Your task to perform on an android device: open sync settings in chrome Image 0: 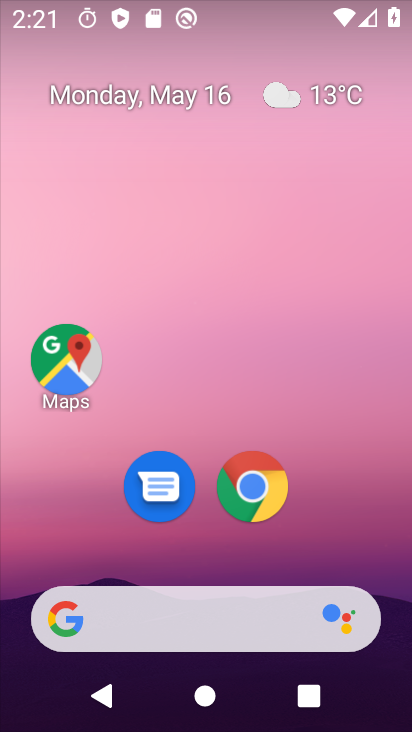
Step 0: drag from (324, 505) to (303, 0)
Your task to perform on an android device: open sync settings in chrome Image 1: 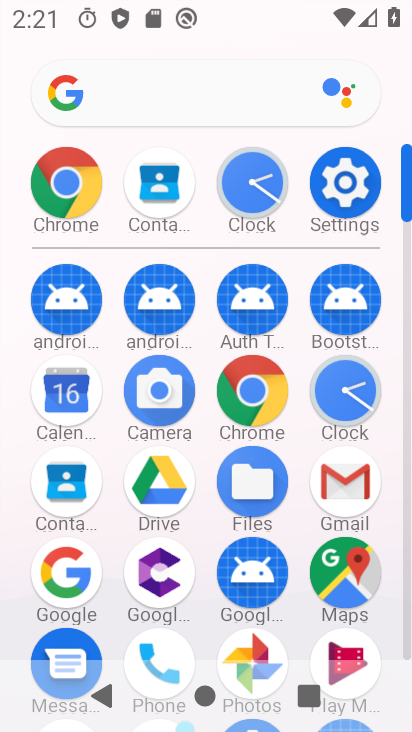
Step 1: click (56, 181)
Your task to perform on an android device: open sync settings in chrome Image 2: 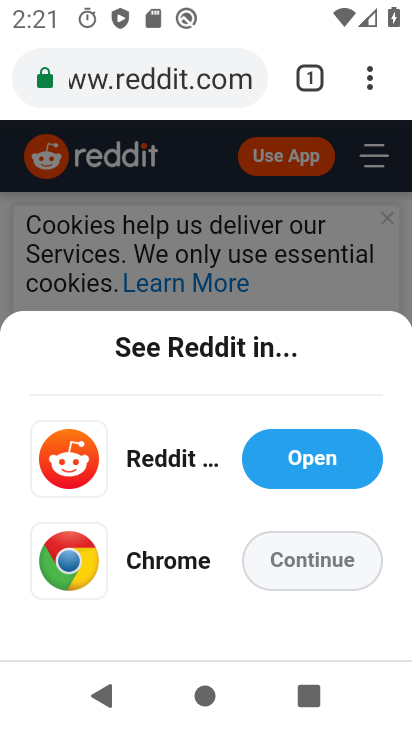
Step 2: drag from (362, 82) to (97, 552)
Your task to perform on an android device: open sync settings in chrome Image 3: 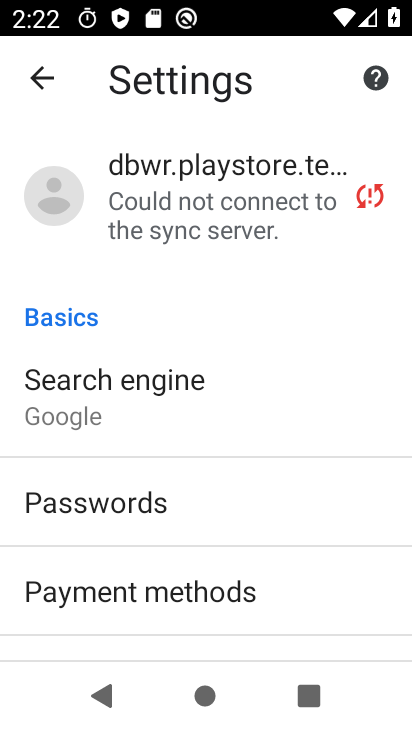
Step 3: drag from (97, 549) to (62, 218)
Your task to perform on an android device: open sync settings in chrome Image 4: 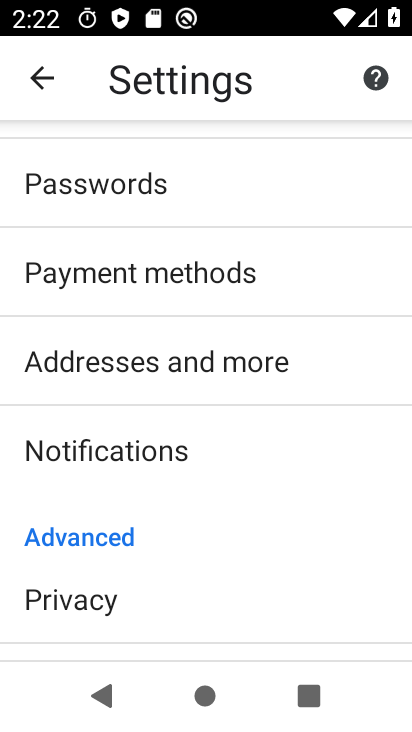
Step 4: drag from (96, 604) to (2, 131)
Your task to perform on an android device: open sync settings in chrome Image 5: 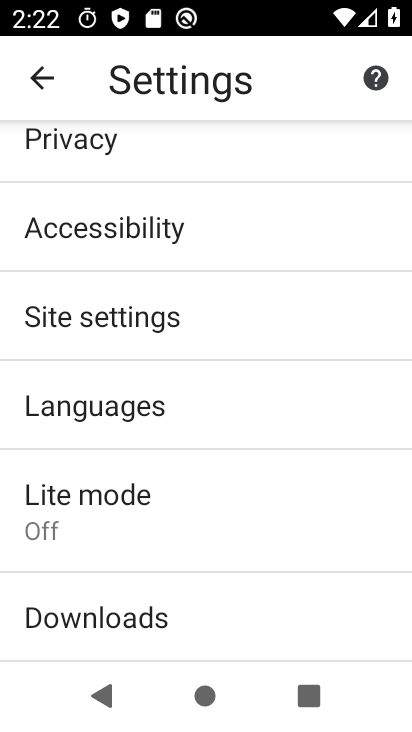
Step 5: drag from (170, 556) to (120, 340)
Your task to perform on an android device: open sync settings in chrome Image 6: 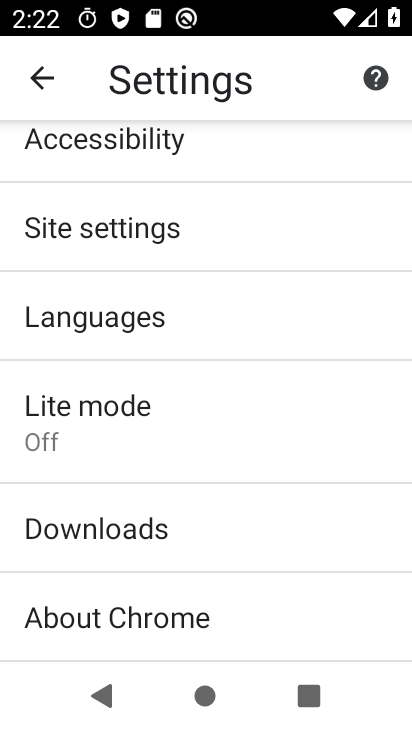
Step 6: click (105, 229)
Your task to perform on an android device: open sync settings in chrome Image 7: 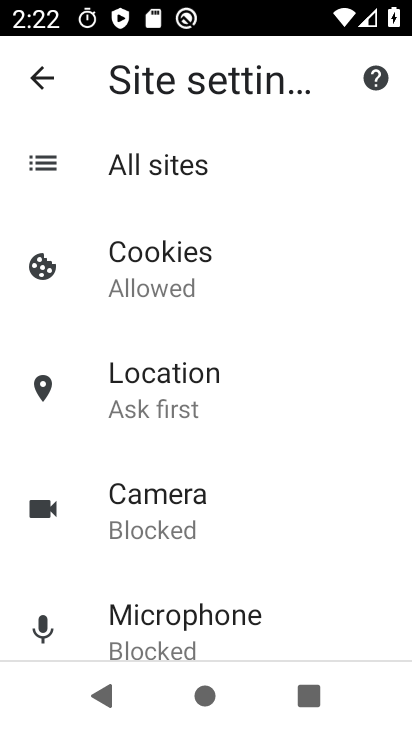
Step 7: drag from (212, 597) to (146, 282)
Your task to perform on an android device: open sync settings in chrome Image 8: 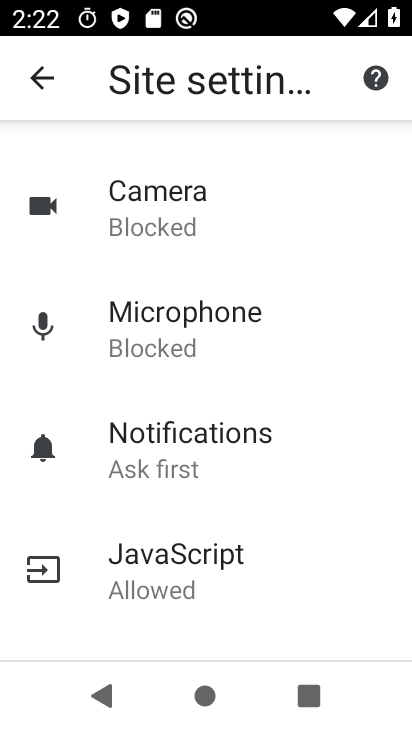
Step 8: drag from (211, 541) to (143, 213)
Your task to perform on an android device: open sync settings in chrome Image 9: 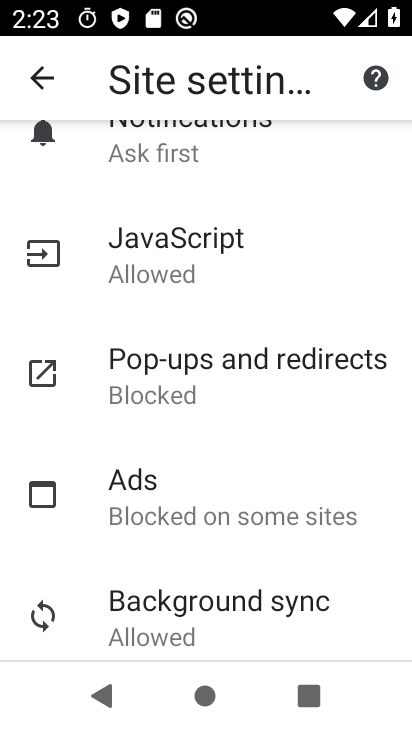
Step 9: click (214, 620)
Your task to perform on an android device: open sync settings in chrome Image 10: 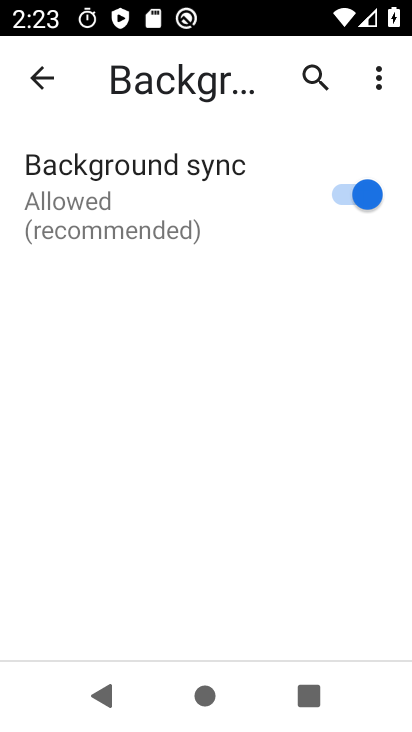
Step 10: task complete